Your task to perform on an android device: Go to network settings Image 0: 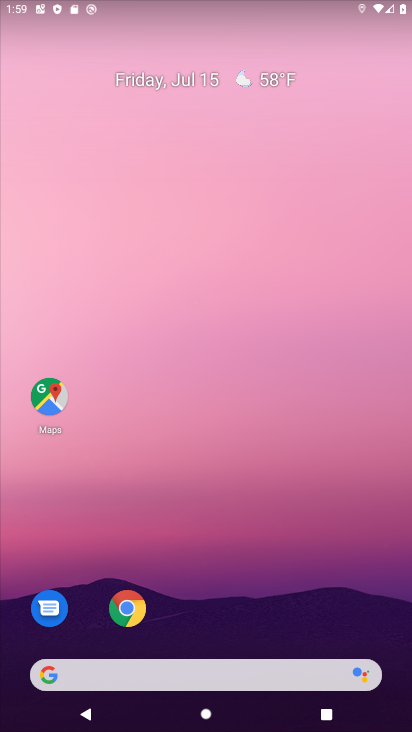
Step 0: drag from (252, 590) to (305, 121)
Your task to perform on an android device: Go to network settings Image 1: 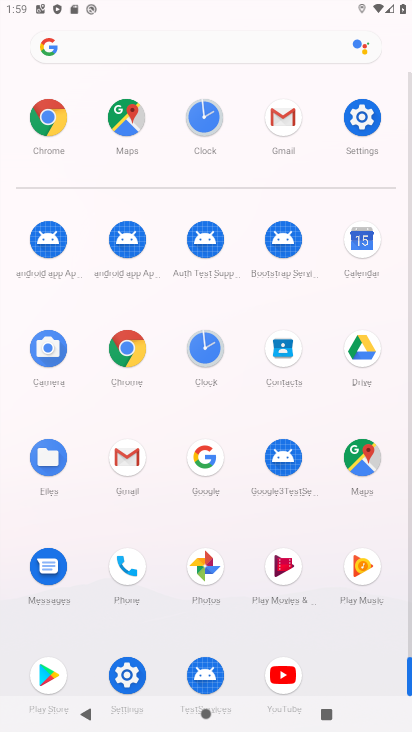
Step 1: click (122, 657)
Your task to perform on an android device: Go to network settings Image 2: 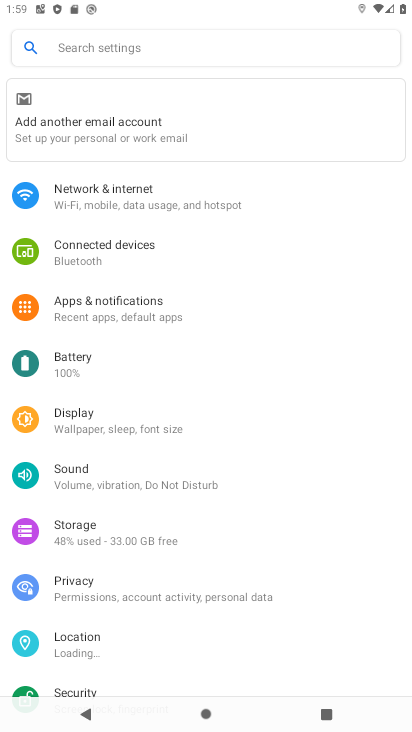
Step 2: click (95, 196)
Your task to perform on an android device: Go to network settings Image 3: 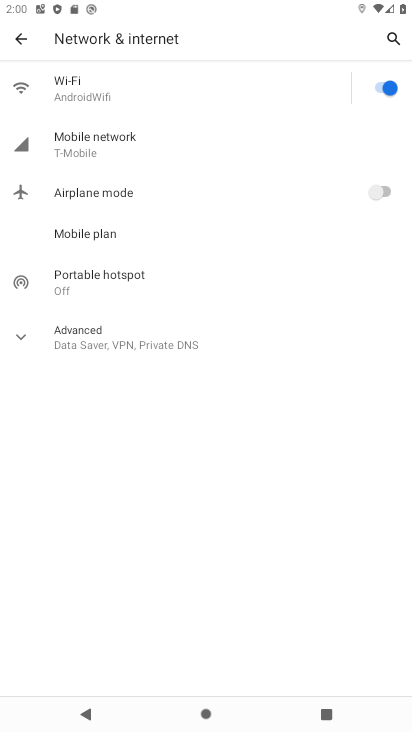
Step 3: task complete